Your task to perform on an android device: turn on bluetooth scan Image 0: 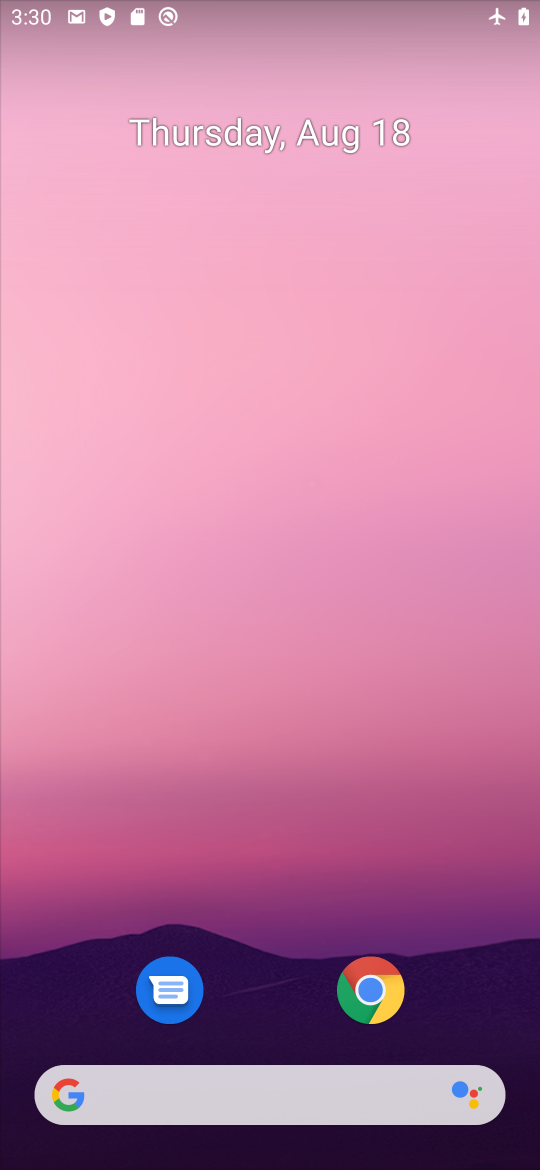
Step 0: drag from (265, 833) to (321, 0)
Your task to perform on an android device: turn on bluetooth scan Image 1: 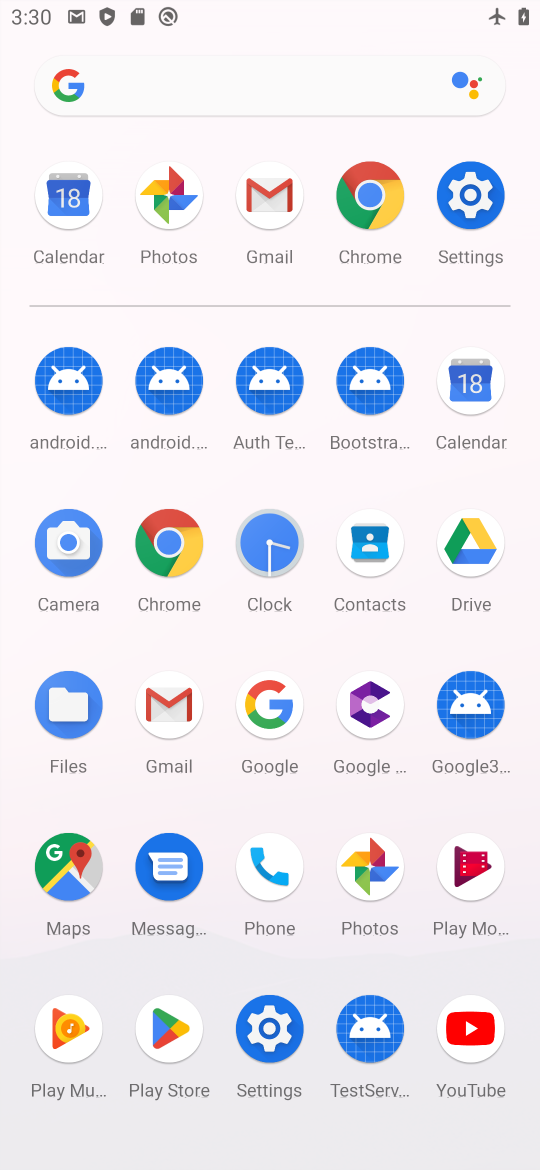
Step 1: click (265, 1039)
Your task to perform on an android device: turn on bluetooth scan Image 2: 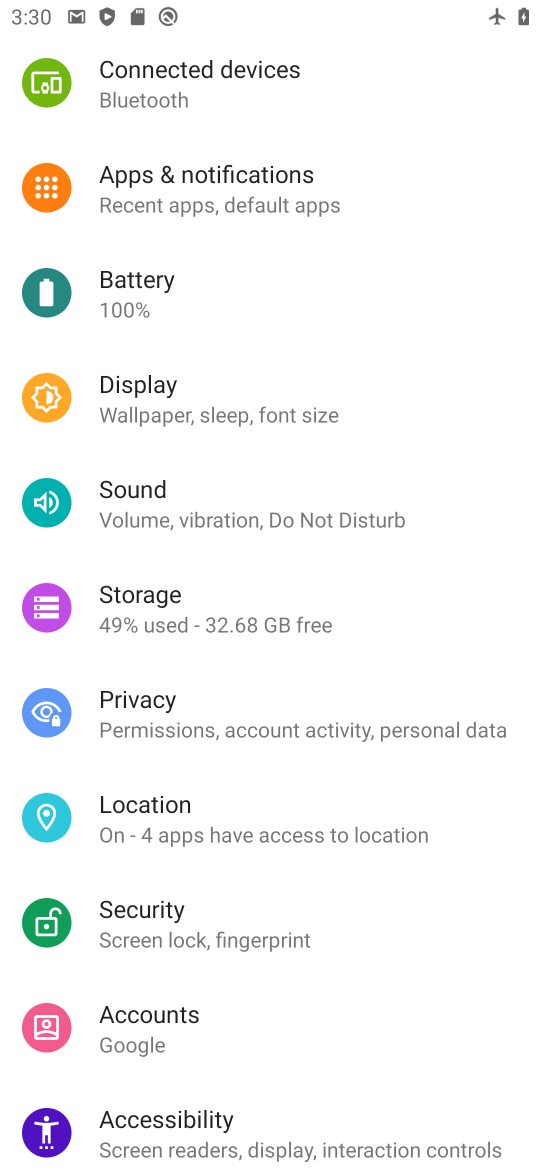
Step 2: click (263, 820)
Your task to perform on an android device: turn on bluetooth scan Image 3: 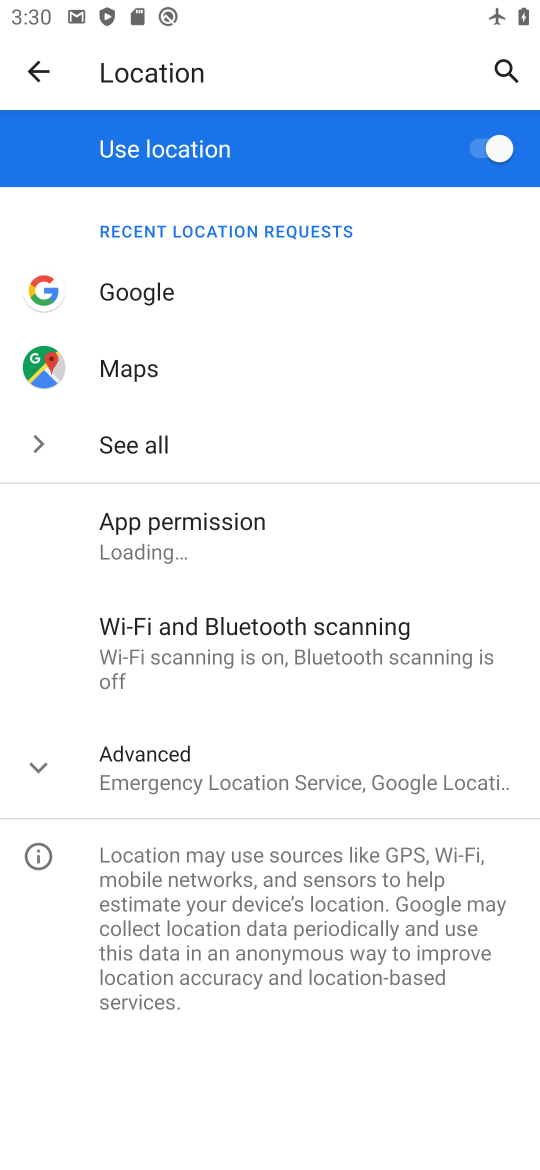
Step 3: click (160, 761)
Your task to perform on an android device: turn on bluetooth scan Image 4: 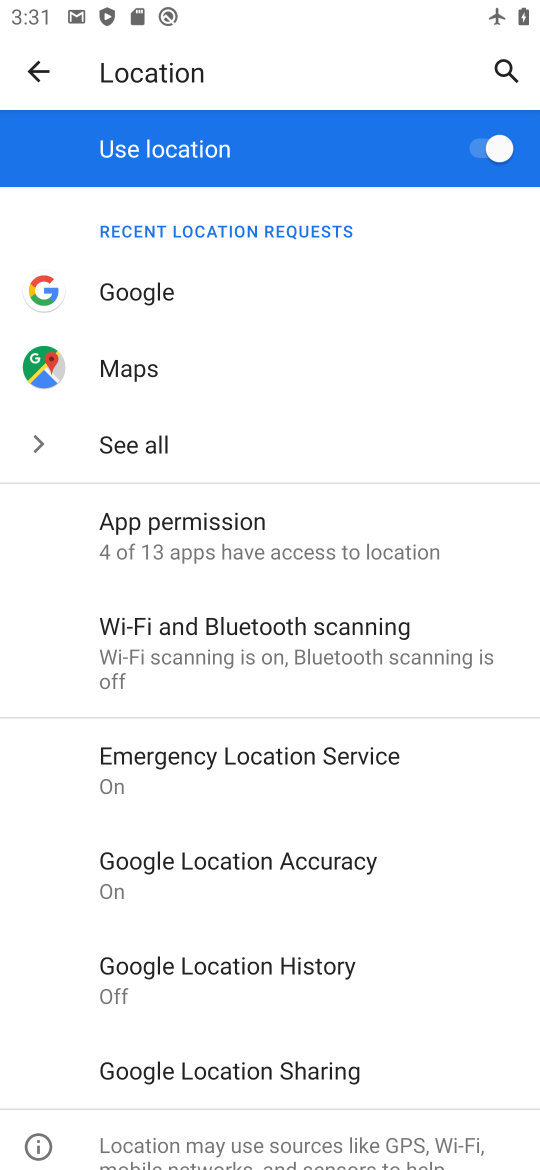
Step 4: click (317, 651)
Your task to perform on an android device: turn on bluetooth scan Image 5: 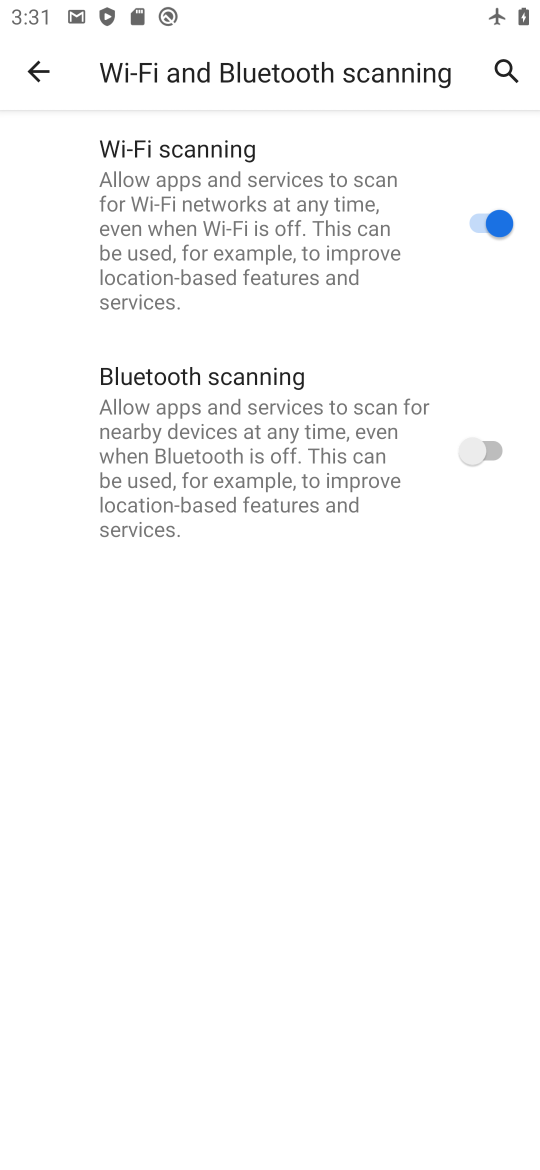
Step 5: click (454, 463)
Your task to perform on an android device: turn on bluetooth scan Image 6: 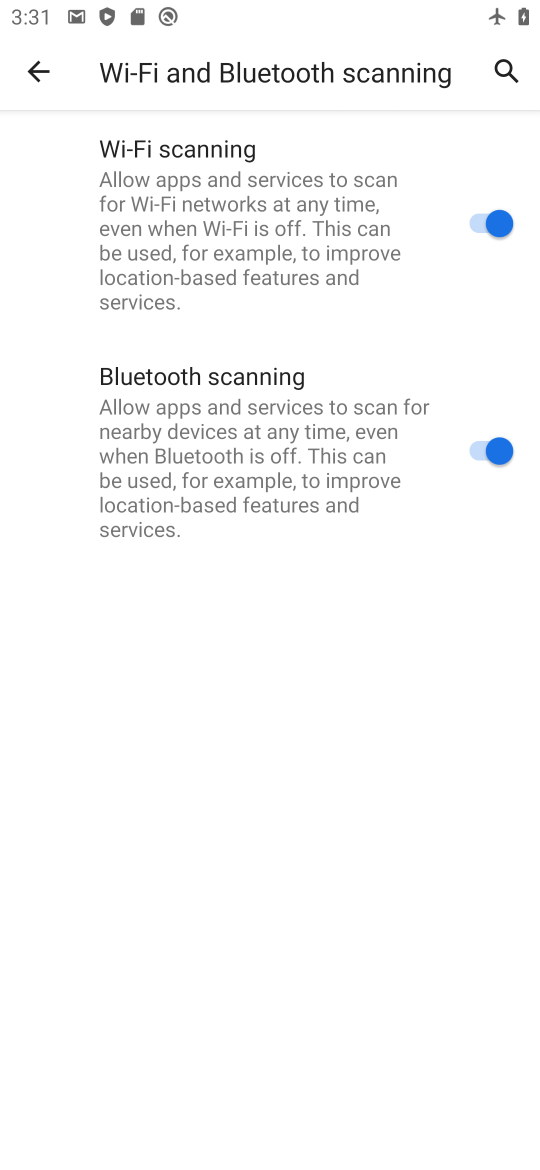
Step 6: task complete